Your task to perform on an android device: Toggle the flashlight Image 0: 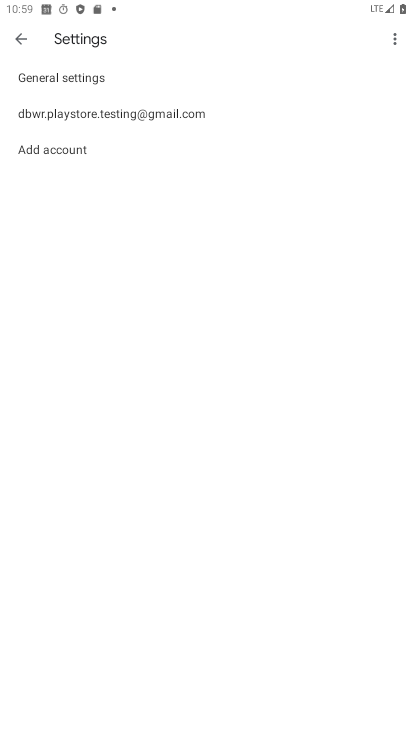
Step 0: press home button
Your task to perform on an android device: Toggle the flashlight Image 1: 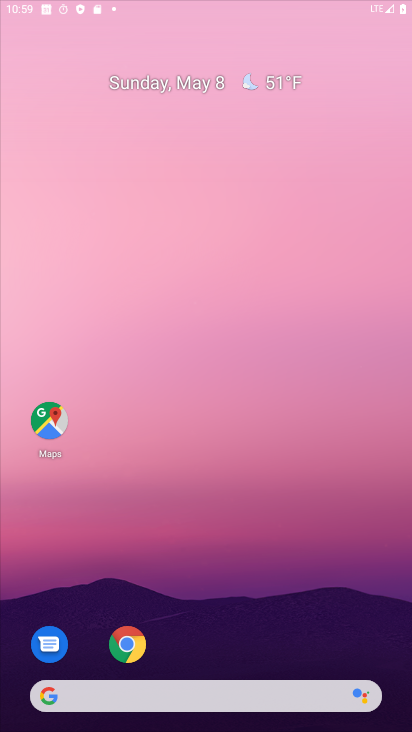
Step 1: drag from (236, 647) to (266, 220)
Your task to perform on an android device: Toggle the flashlight Image 2: 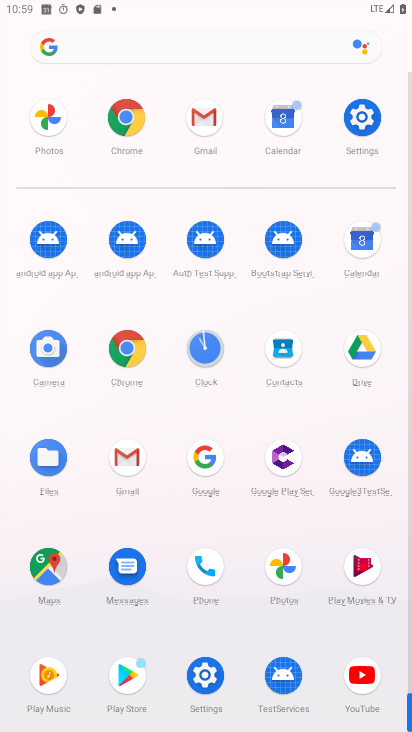
Step 2: click (348, 111)
Your task to perform on an android device: Toggle the flashlight Image 3: 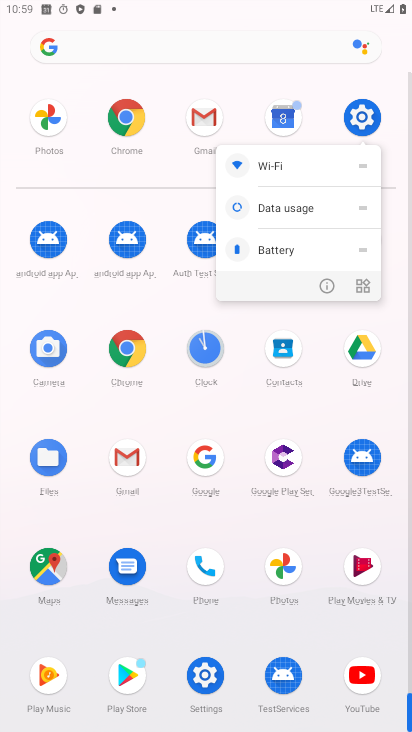
Step 3: click (324, 280)
Your task to perform on an android device: Toggle the flashlight Image 4: 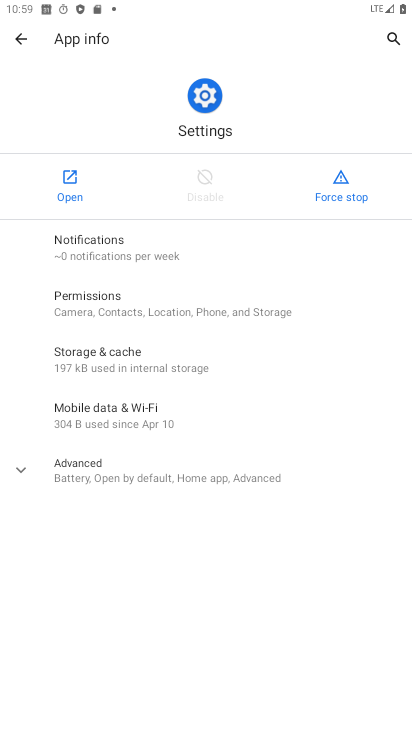
Step 4: click (71, 196)
Your task to perform on an android device: Toggle the flashlight Image 5: 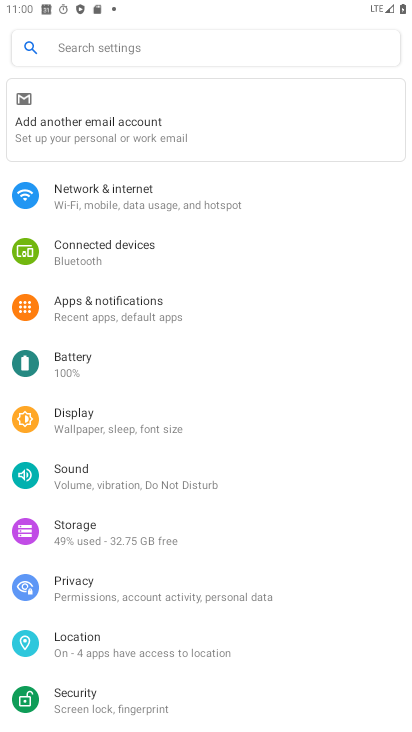
Step 5: click (199, 48)
Your task to perform on an android device: Toggle the flashlight Image 6: 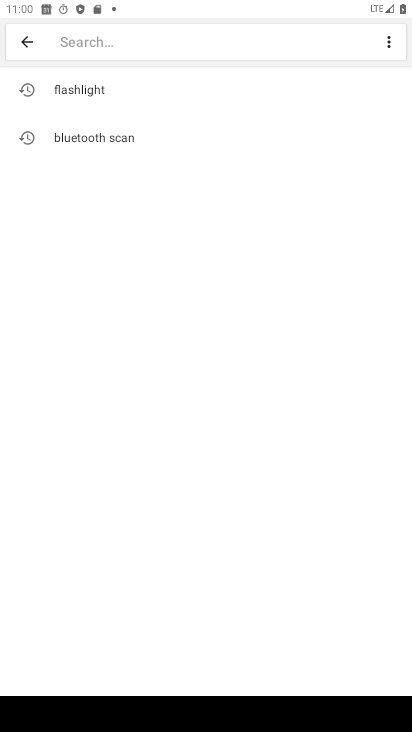
Step 6: type "flash"
Your task to perform on an android device: Toggle the flashlight Image 7: 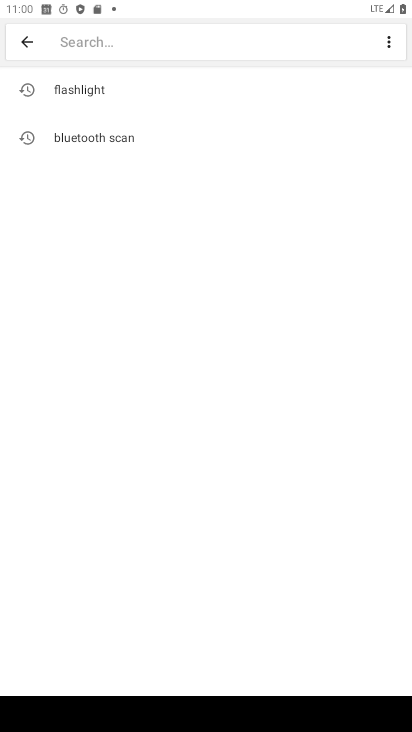
Step 7: click (105, 74)
Your task to perform on an android device: Toggle the flashlight Image 8: 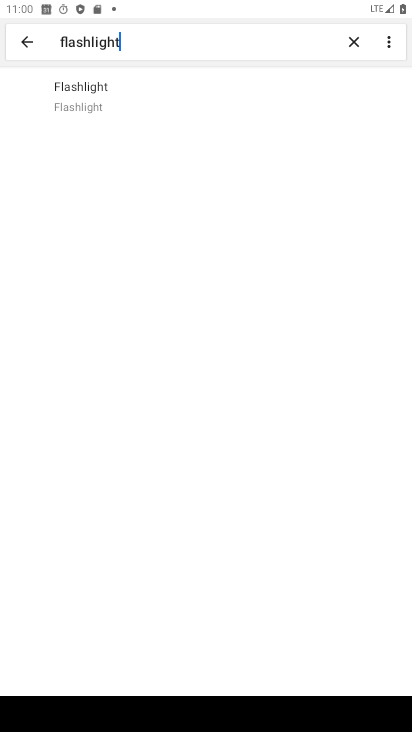
Step 8: click (85, 95)
Your task to perform on an android device: Toggle the flashlight Image 9: 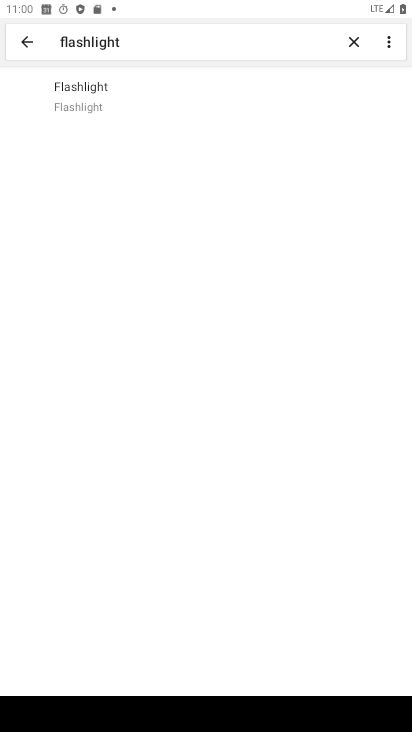
Step 9: click (198, 103)
Your task to perform on an android device: Toggle the flashlight Image 10: 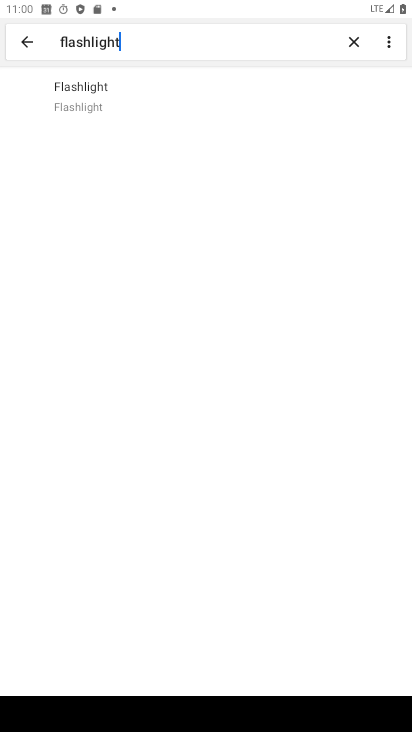
Step 10: click (100, 119)
Your task to perform on an android device: Toggle the flashlight Image 11: 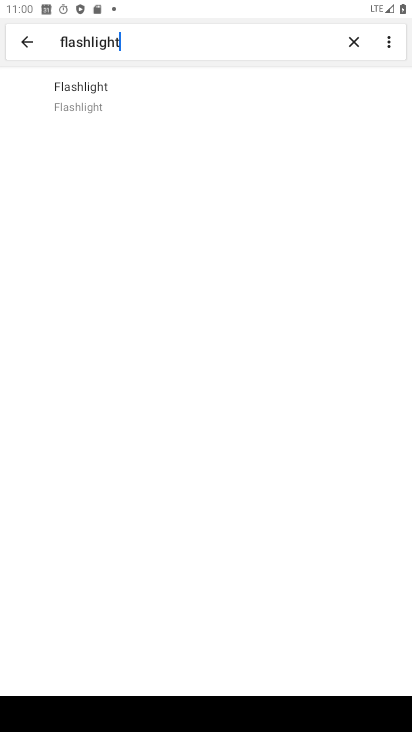
Step 11: task complete